Your task to perform on an android device: Do I have any events today? Image 0: 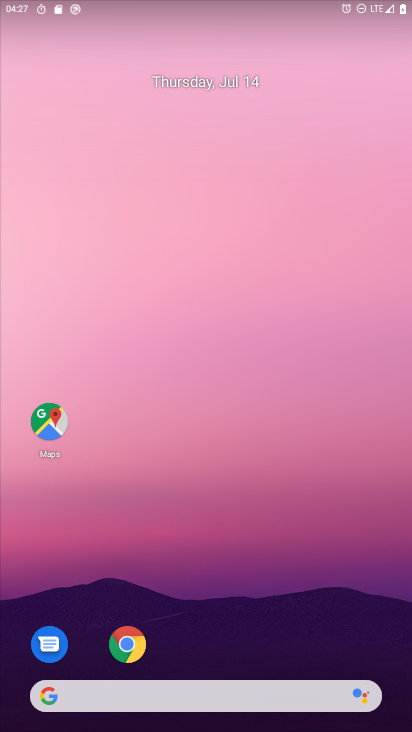
Step 0: drag from (268, 516) to (231, 34)
Your task to perform on an android device: Do I have any events today? Image 1: 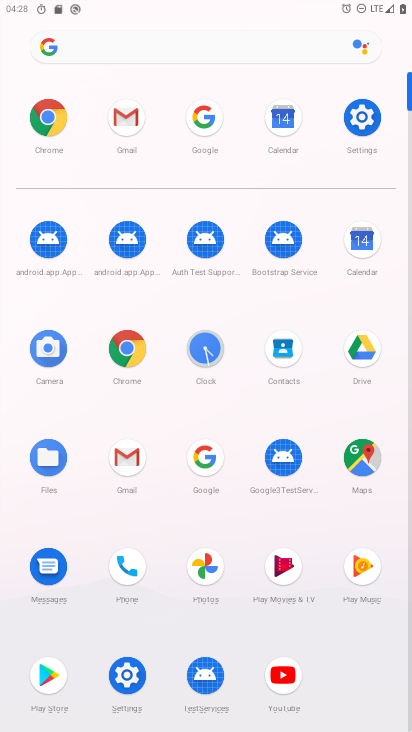
Step 1: click (363, 236)
Your task to perform on an android device: Do I have any events today? Image 2: 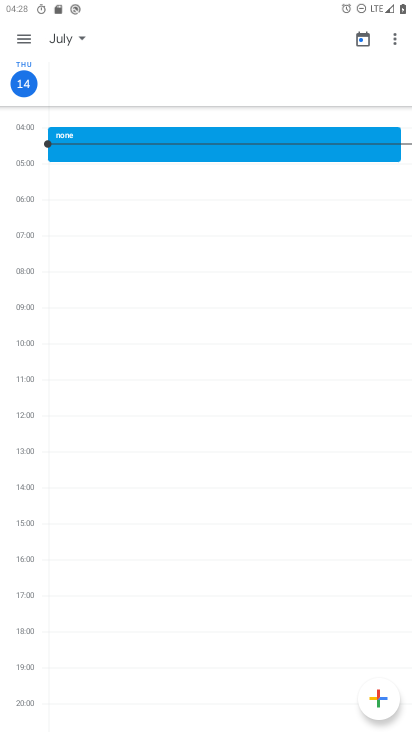
Step 2: task complete